Your task to perform on an android device: Add bose soundlink to the cart on walmart Image 0: 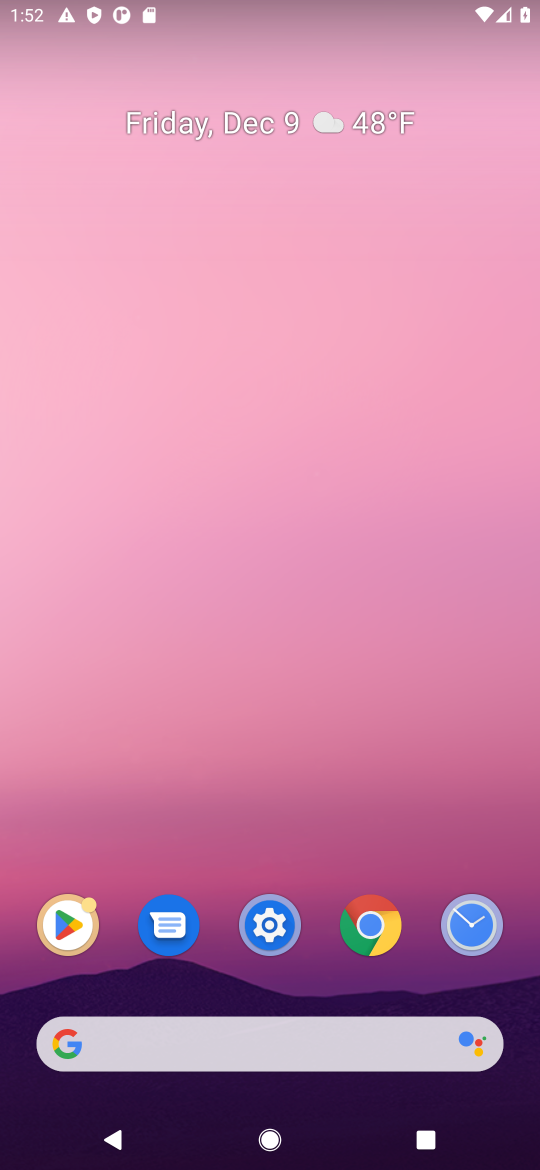
Step 0: press home button
Your task to perform on an android device: Add bose soundlink to the cart on walmart Image 1: 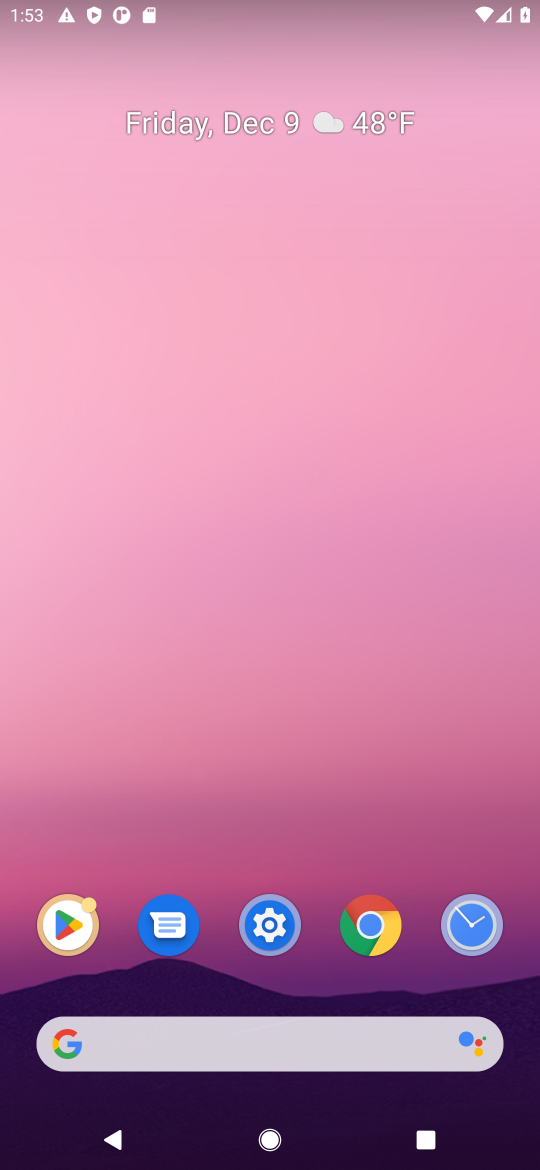
Step 1: click (274, 1043)
Your task to perform on an android device: Add bose soundlink to the cart on walmart Image 2: 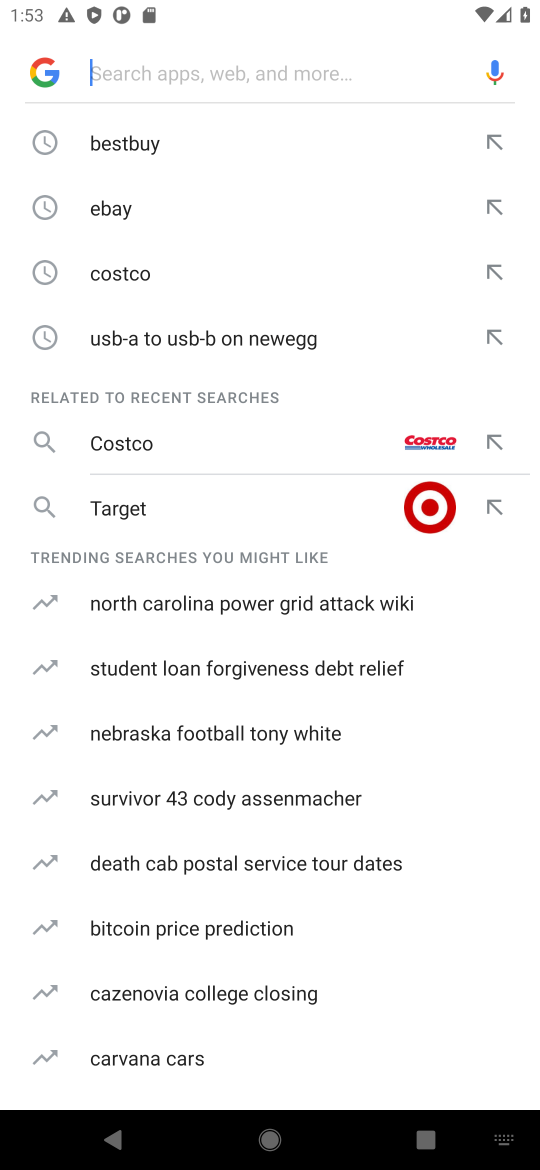
Step 2: type "walmart"
Your task to perform on an android device: Add bose soundlink to the cart on walmart Image 3: 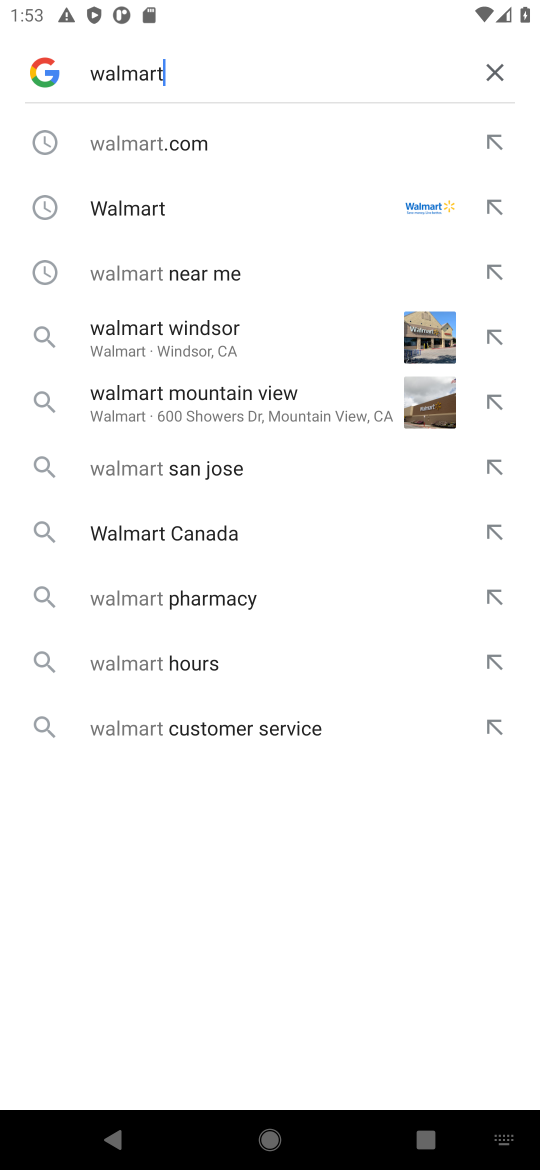
Step 3: click (250, 141)
Your task to perform on an android device: Add bose soundlink to the cart on walmart Image 4: 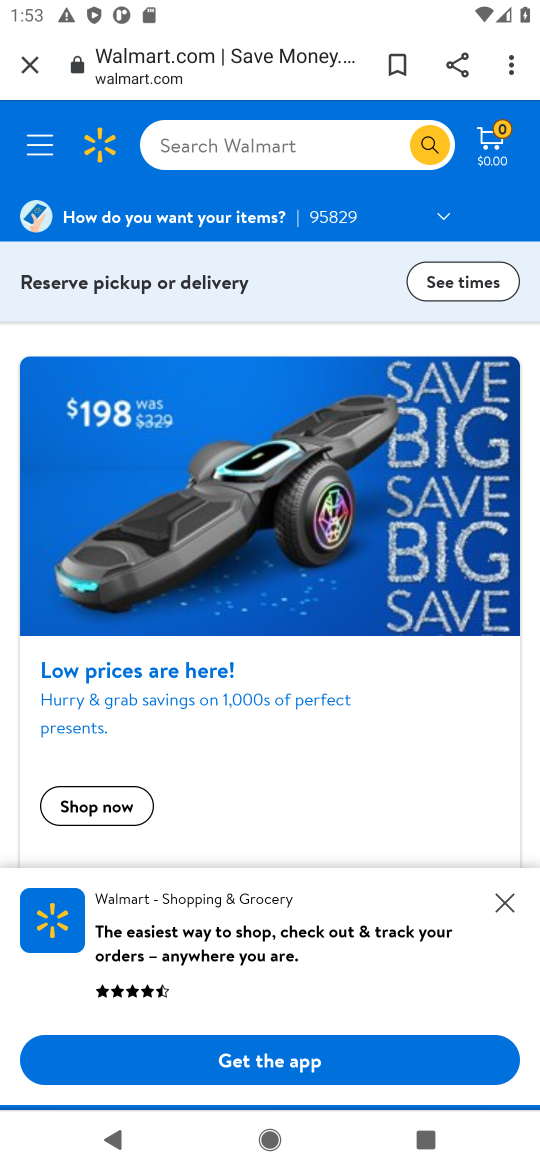
Step 4: click (250, 141)
Your task to perform on an android device: Add bose soundlink to the cart on walmart Image 5: 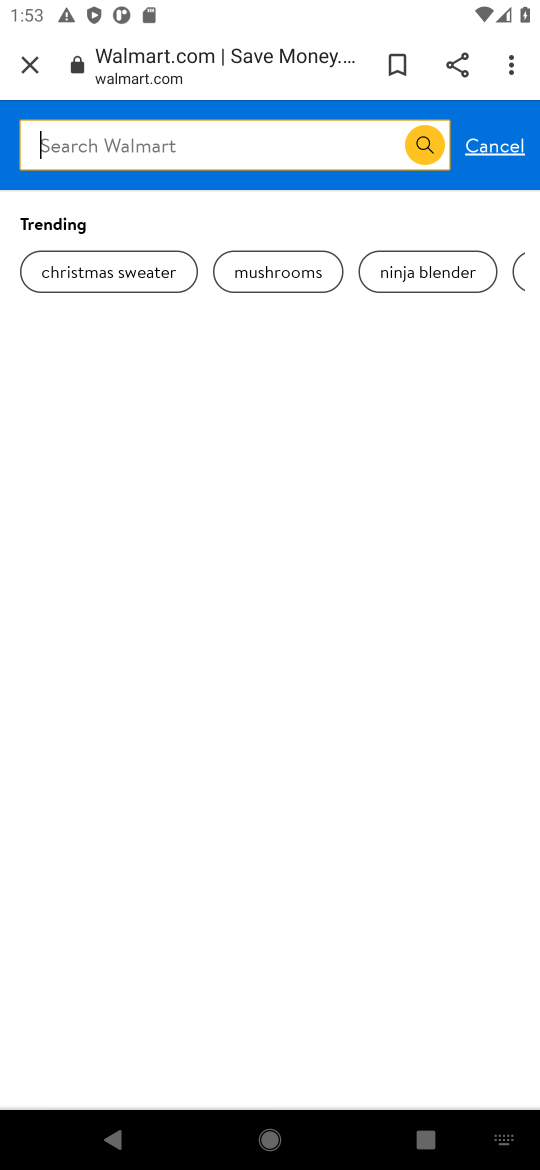
Step 5: type "bose sound link"
Your task to perform on an android device: Add bose soundlink to the cart on walmart Image 6: 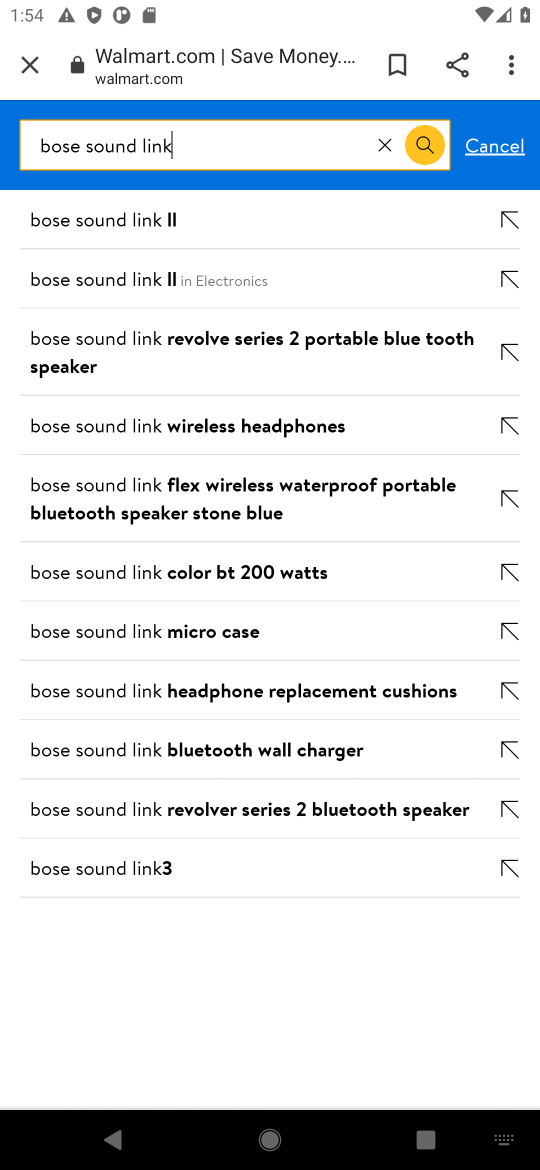
Step 6: click (50, 221)
Your task to perform on an android device: Add bose soundlink to the cart on walmart Image 7: 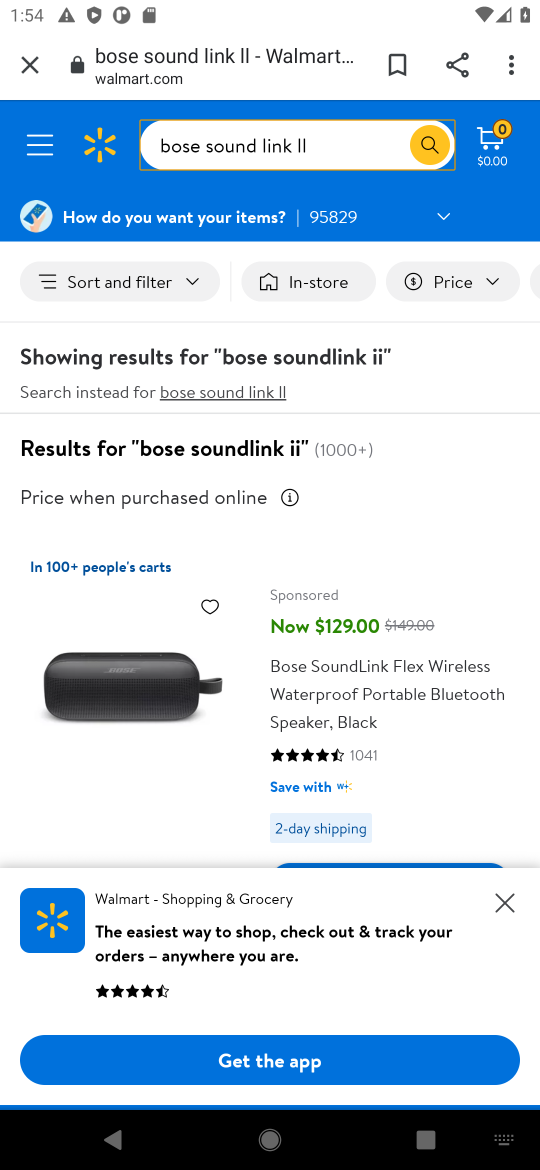
Step 7: drag from (344, 702) to (314, 553)
Your task to perform on an android device: Add bose soundlink to the cart on walmart Image 8: 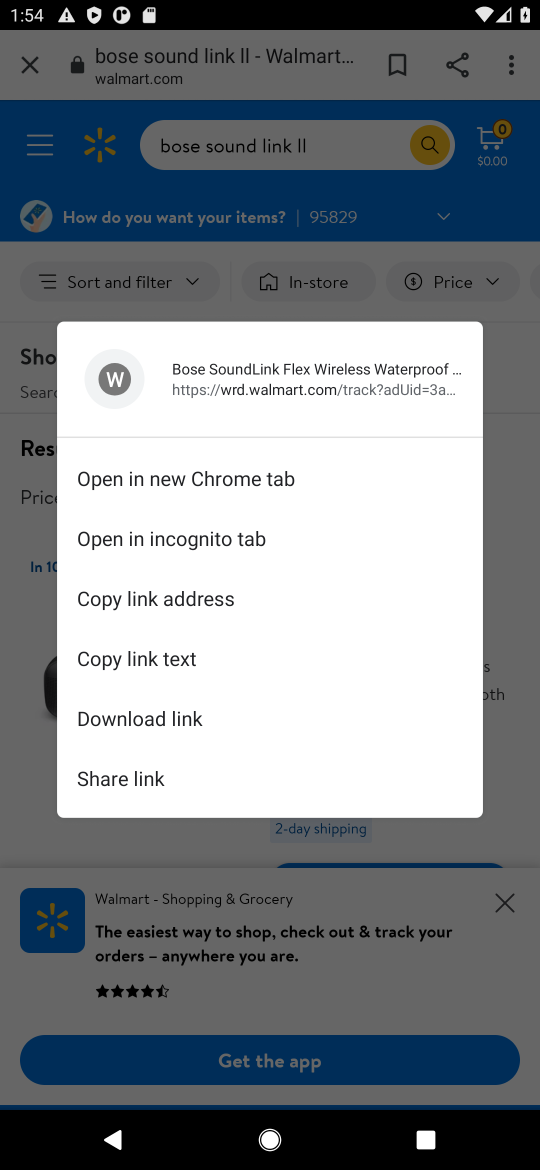
Step 8: click (352, 830)
Your task to perform on an android device: Add bose soundlink to the cart on walmart Image 9: 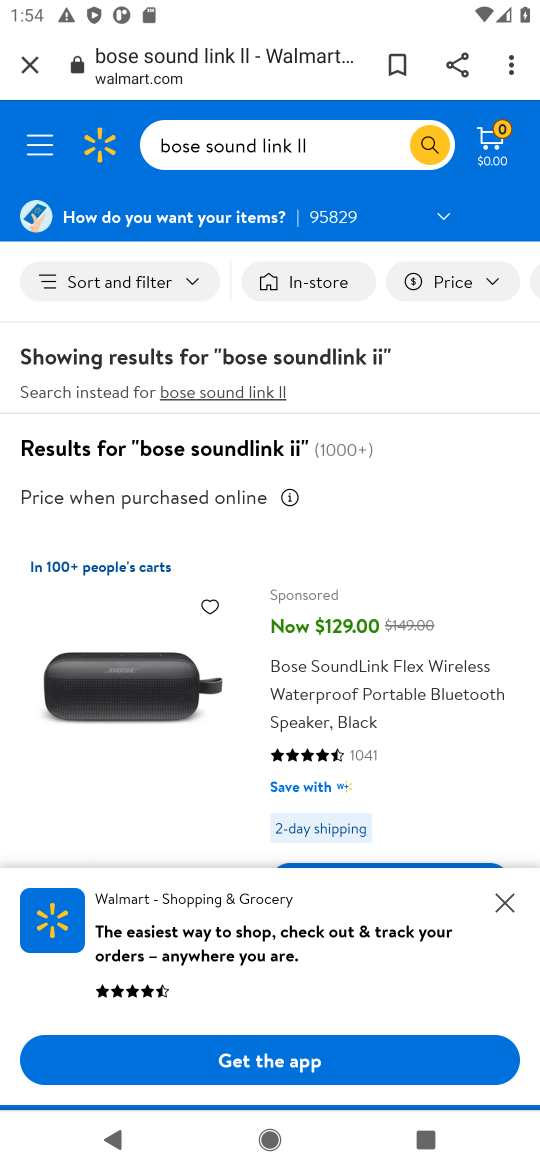
Step 9: click (362, 657)
Your task to perform on an android device: Add bose soundlink to the cart on walmart Image 10: 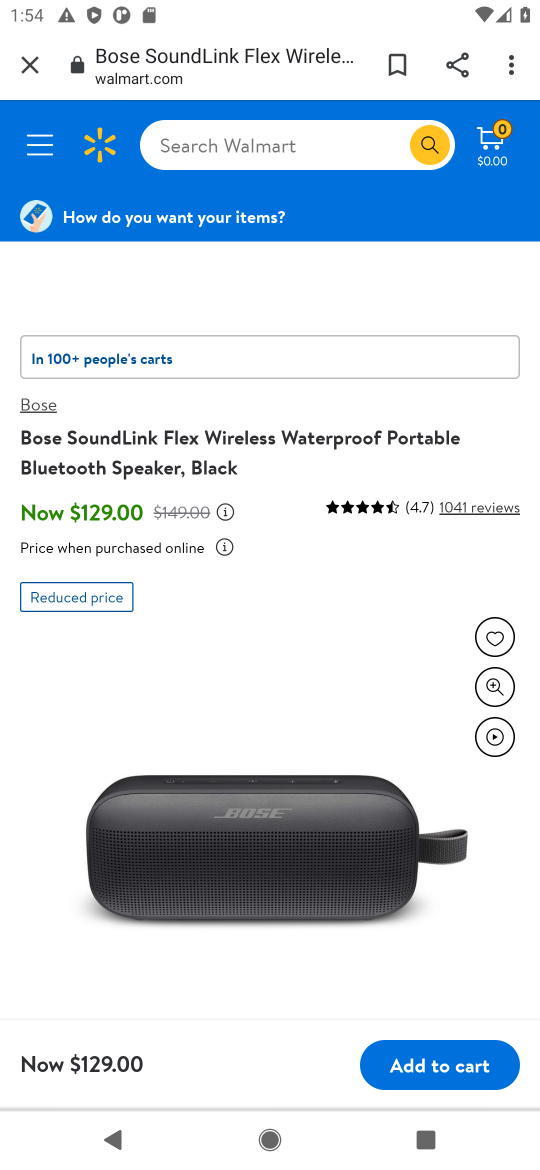
Step 10: click (448, 1061)
Your task to perform on an android device: Add bose soundlink to the cart on walmart Image 11: 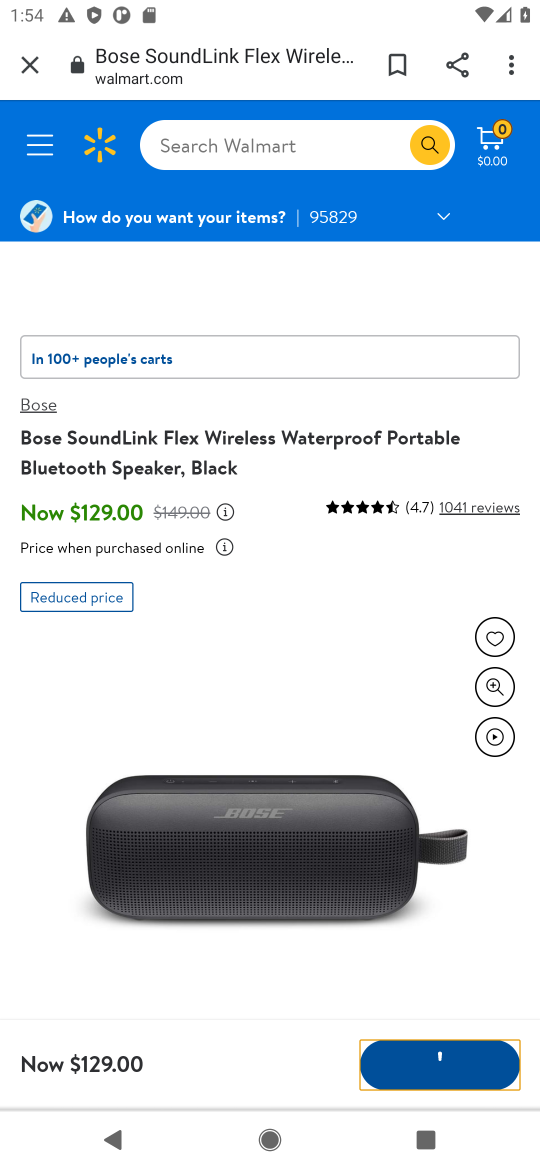
Step 11: task complete